Your task to perform on an android device: Open Yahoo.com Image 0: 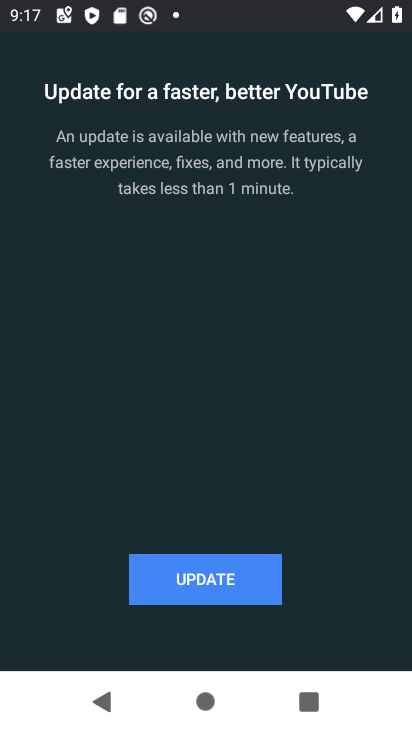
Step 0: press home button
Your task to perform on an android device: Open Yahoo.com Image 1: 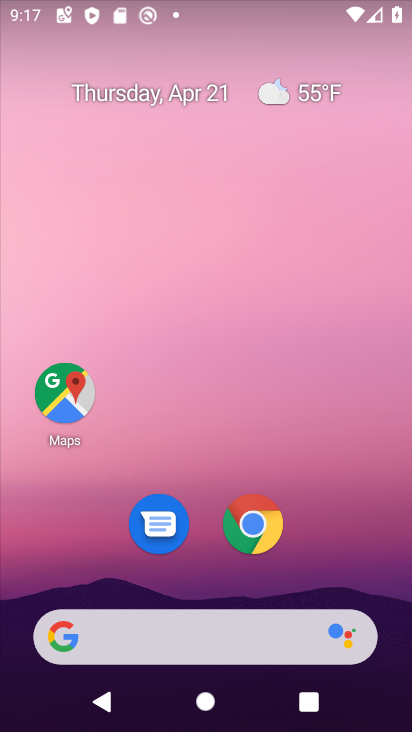
Step 1: click (237, 637)
Your task to perform on an android device: Open Yahoo.com Image 2: 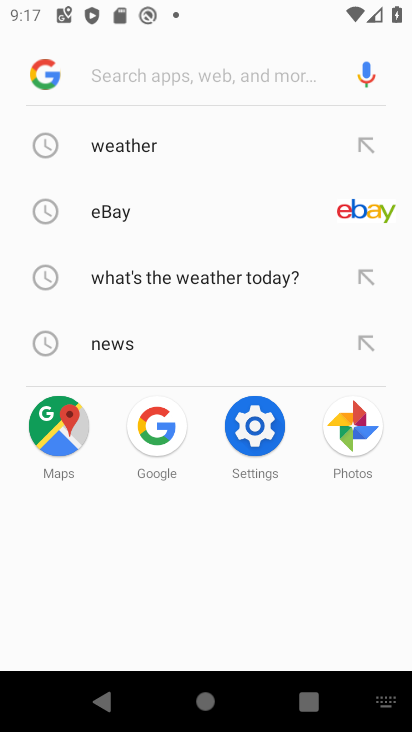
Step 2: type "yahoo.com"
Your task to perform on an android device: Open Yahoo.com Image 3: 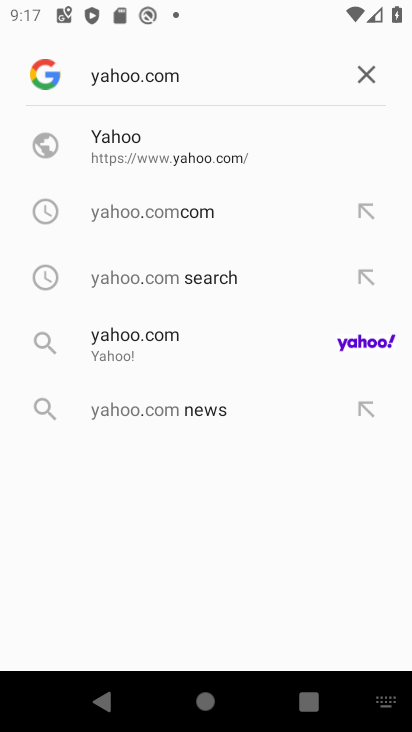
Step 3: click (222, 347)
Your task to perform on an android device: Open Yahoo.com Image 4: 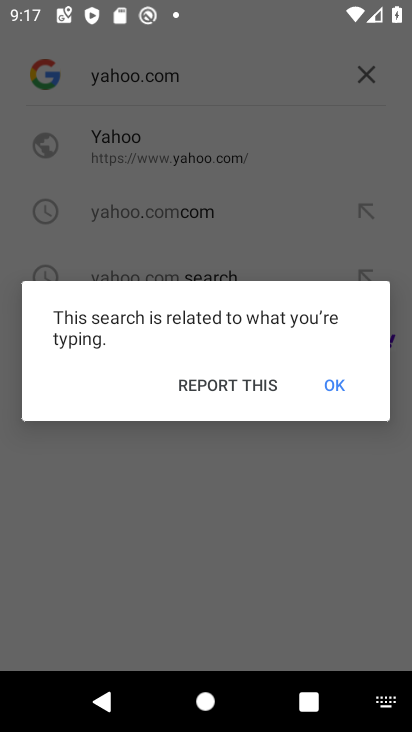
Step 4: click (335, 379)
Your task to perform on an android device: Open Yahoo.com Image 5: 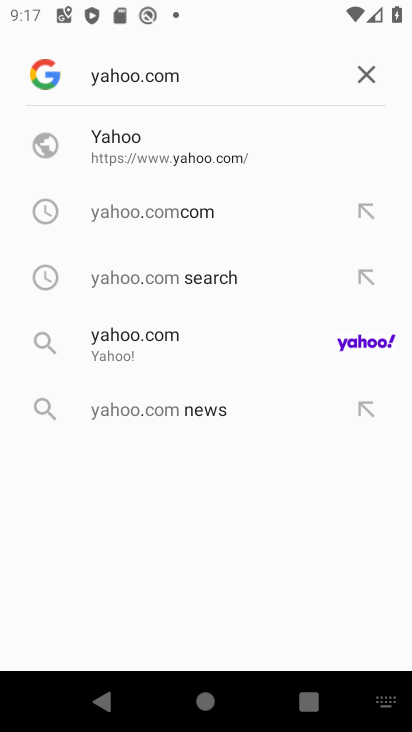
Step 5: click (196, 344)
Your task to perform on an android device: Open Yahoo.com Image 6: 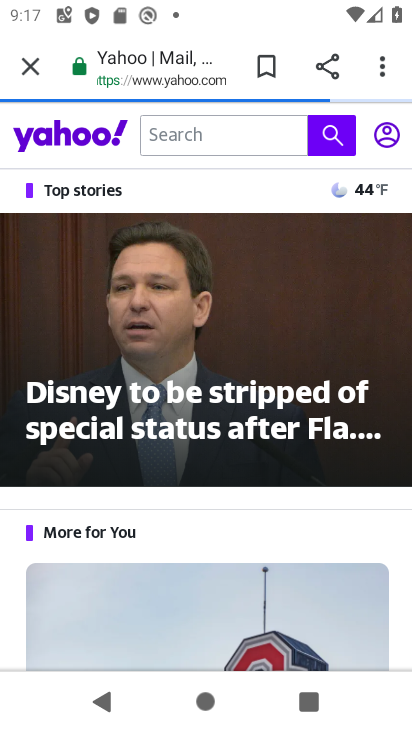
Step 6: task complete